Your task to perform on an android device: toggle priority inbox in the gmail app Image 0: 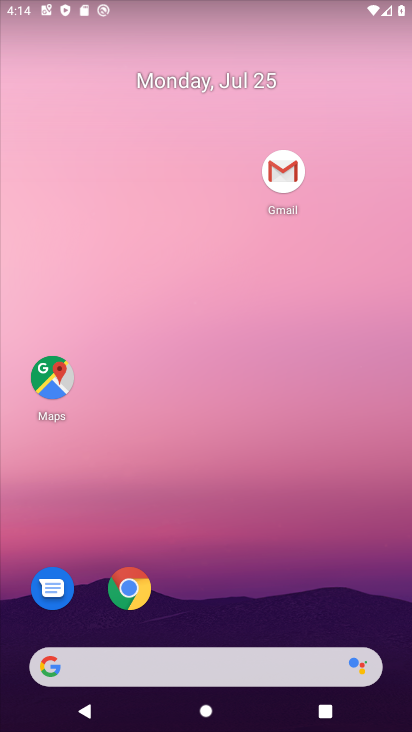
Step 0: drag from (316, 610) to (323, 72)
Your task to perform on an android device: toggle priority inbox in the gmail app Image 1: 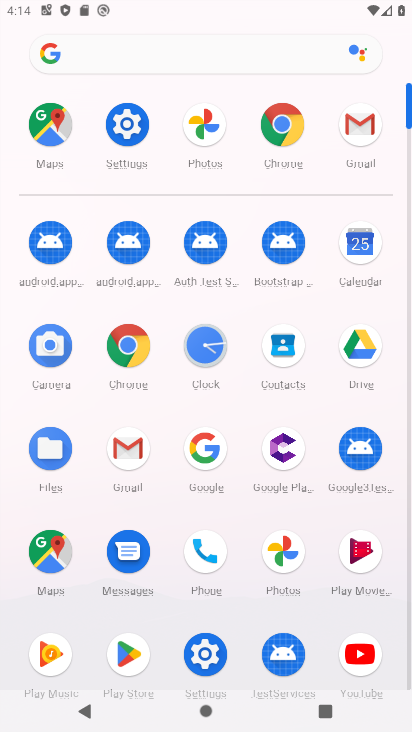
Step 1: drag from (233, 304) to (236, 108)
Your task to perform on an android device: toggle priority inbox in the gmail app Image 2: 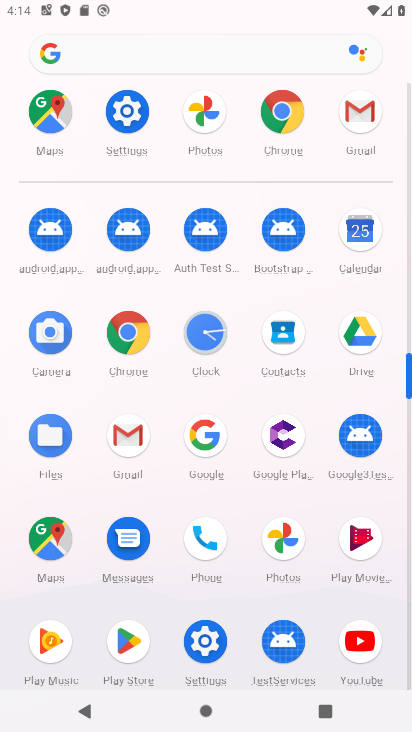
Step 2: drag from (237, 590) to (202, 60)
Your task to perform on an android device: toggle priority inbox in the gmail app Image 3: 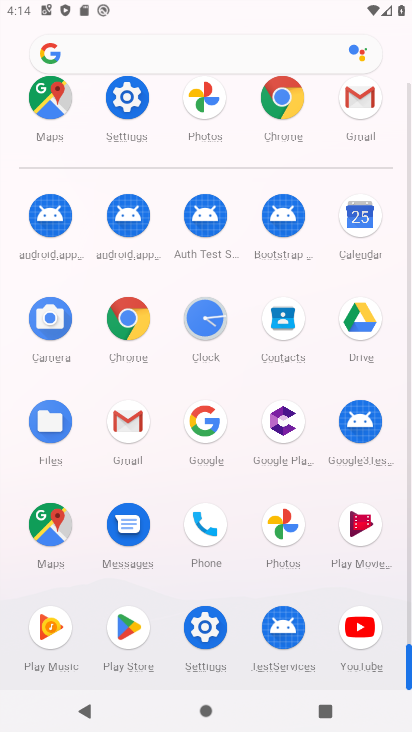
Step 3: click (131, 423)
Your task to perform on an android device: toggle priority inbox in the gmail app Image 4: 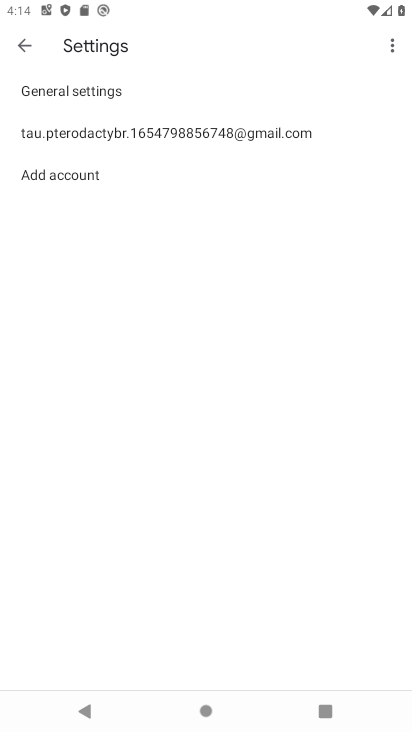
Step 4: click (294, 137)
Your task to perform on an android device: toggle priority inbox in the gmail app Image 5: 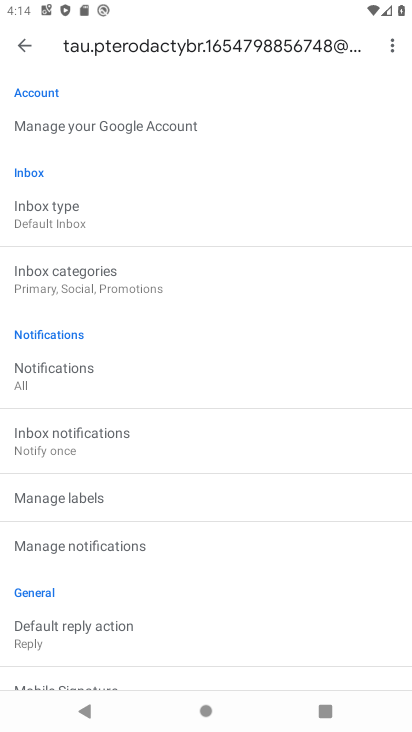
Step 5: click (53, 213)
Your task to perform on an android device: toggle priority inbox in the gmail app Image 6: 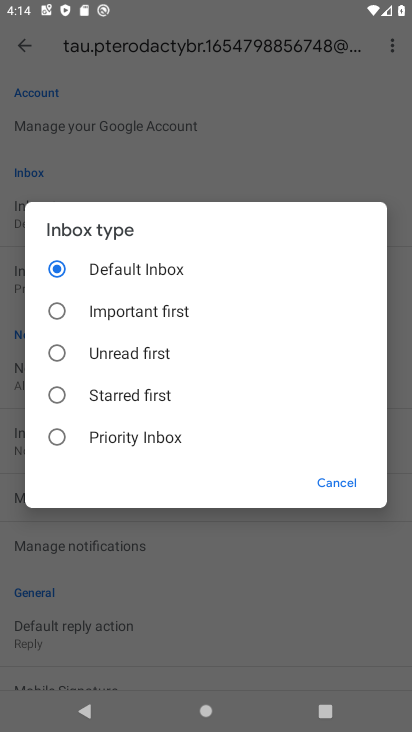
Step 6: click (87, 427)
Your task to perform on an android device: toggle priority inbox in the gmail app Image 7: 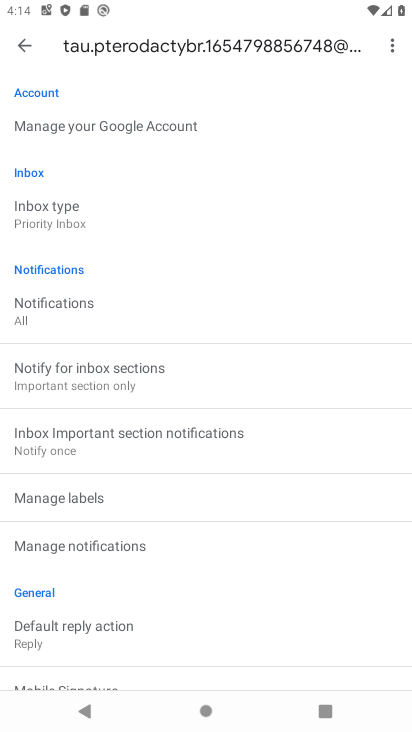
Step 7: task complete